Your task to perform on an android device: set an alarm Image 0: 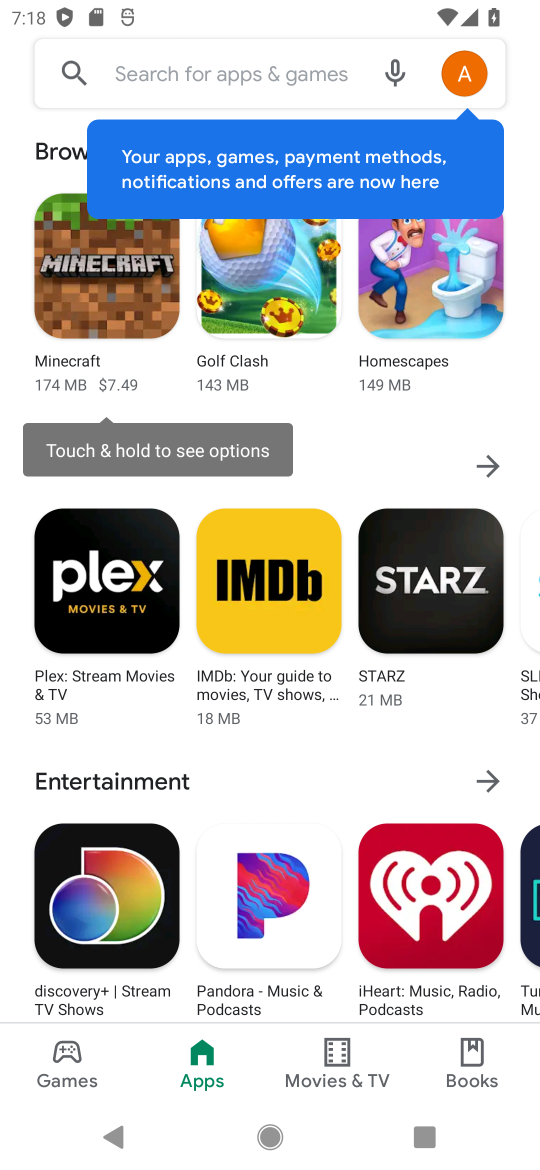
Step 0: press home button
Your task to perform on an android device: set an alarm Image 1: 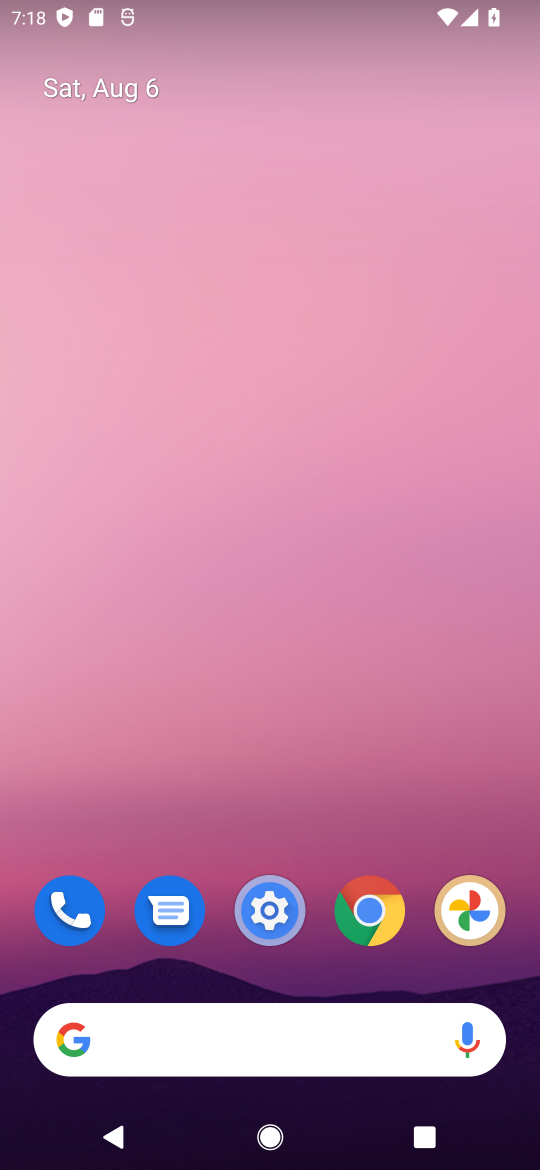
Step 1: drag from (520, 1031) to (396, 82)
Your task to perform on an android device: set an alarm Image 2: 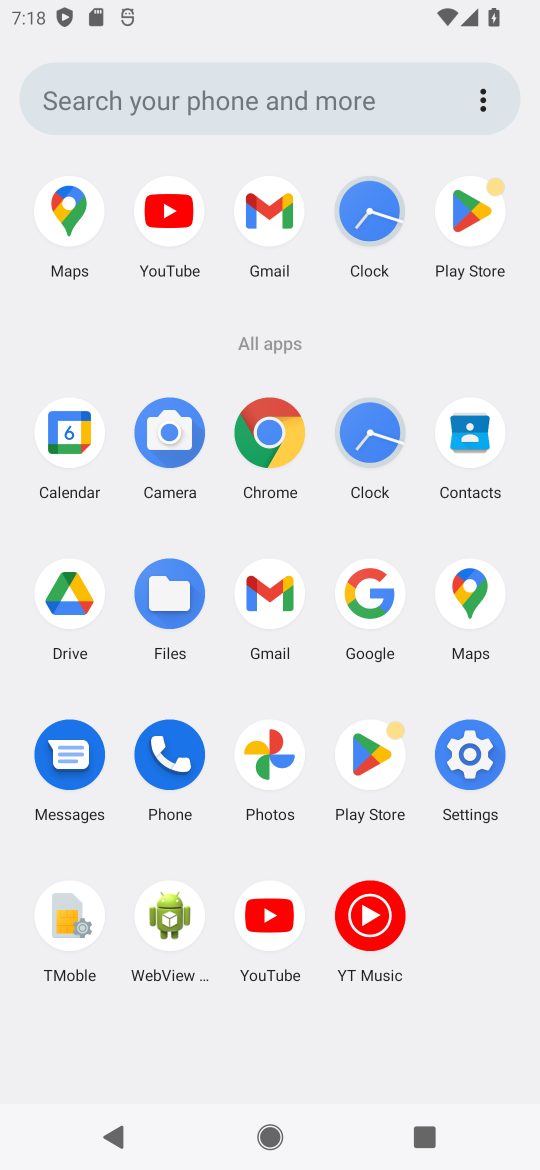
Step 2: click (374, 435)
Your task to perform on an android device: set an alarm Image 3: 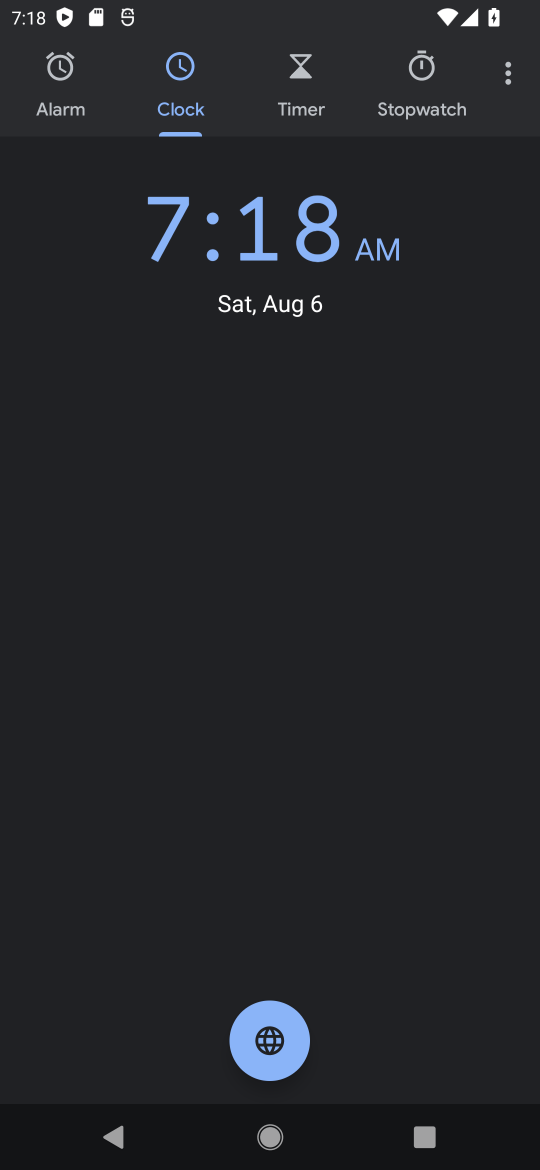
Step 3: click (62, 73)
Your task to perform on an android device: set an alarm Image 4: 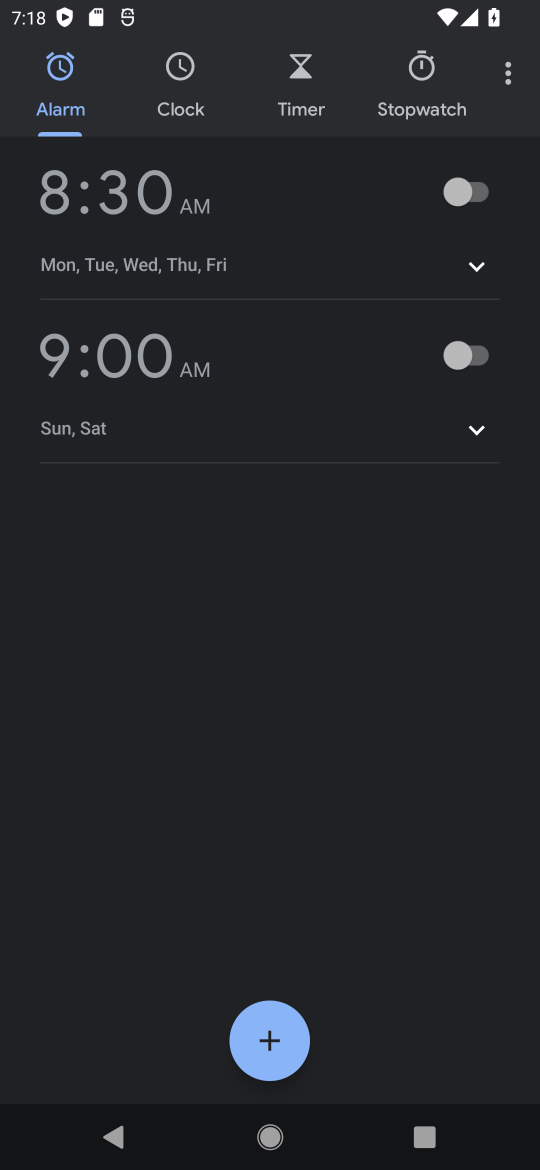
Step 4: click (460, 184)
Your task to perform on an android device: set an alarm Image 5: 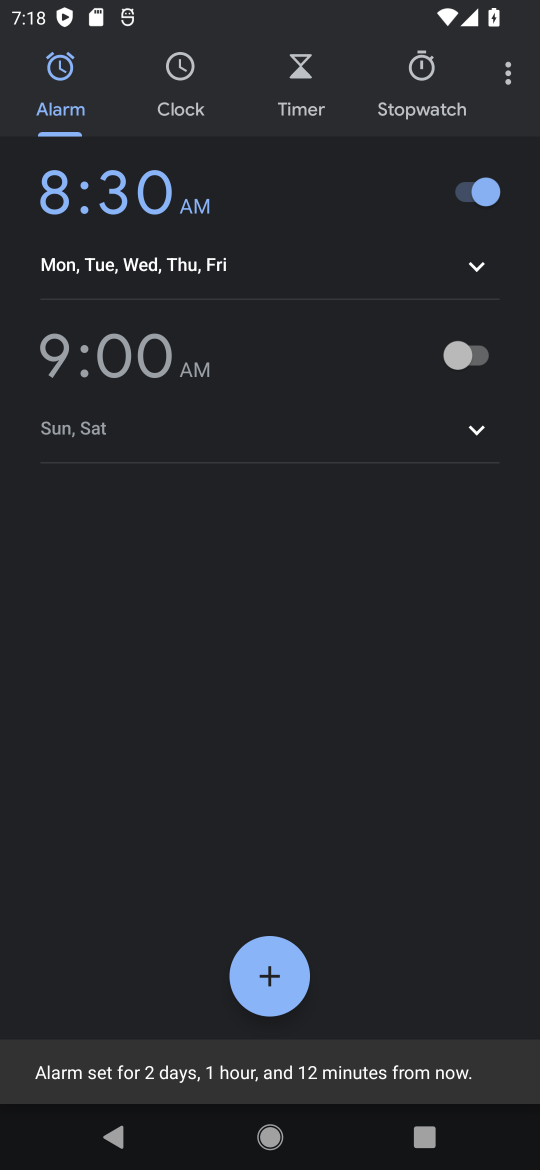
Step 5: task complete